Your task to perform on an android device: When is my next appointment? Image 0: 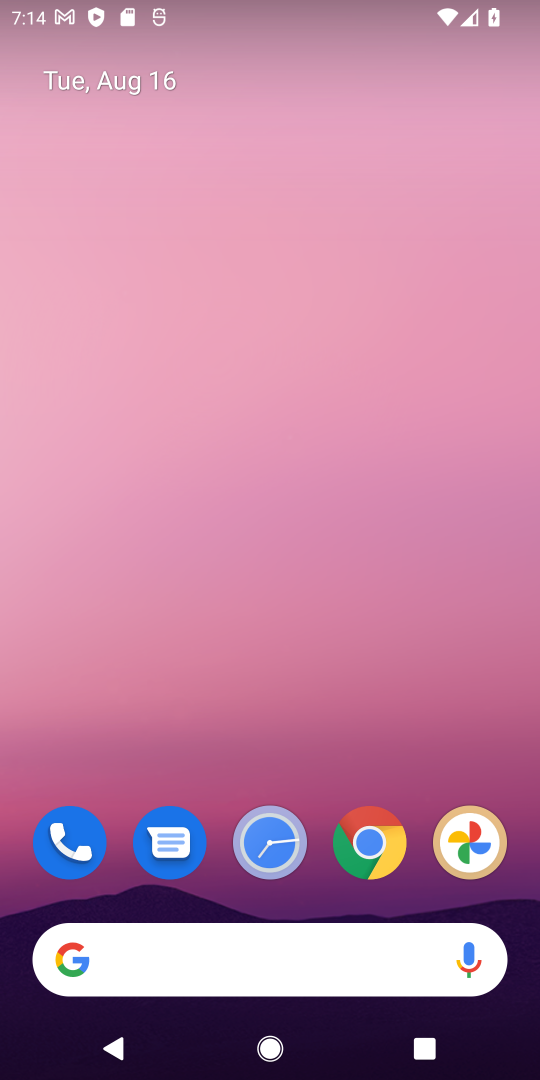
Step 0: press home button
Your task to perform on an android device: When is my next appointment? Image 1: 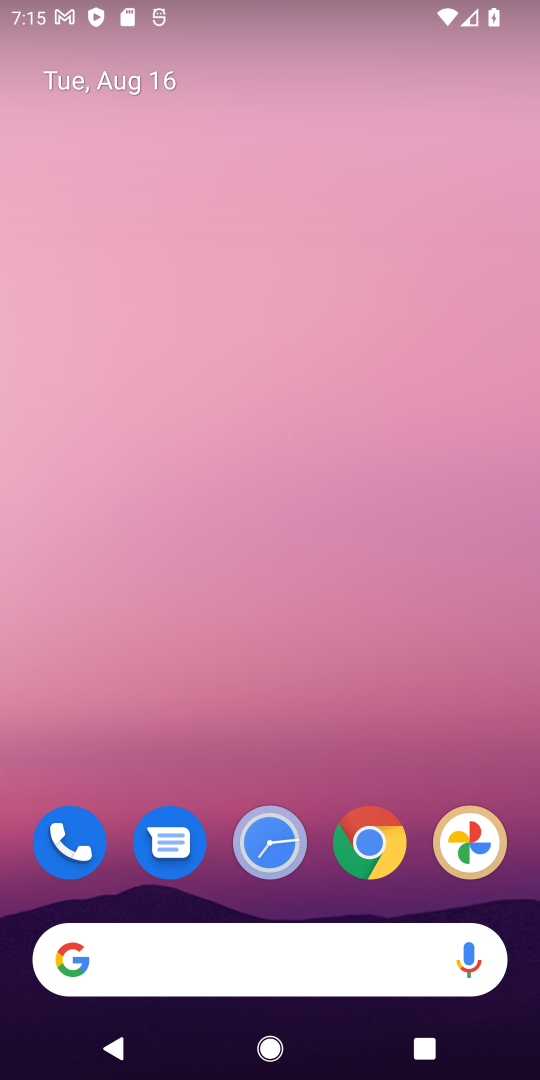
Step 1: drag from (314, 807) to (317, 0)
Your task to perform on an android device: When is my next appointment? Image 2: 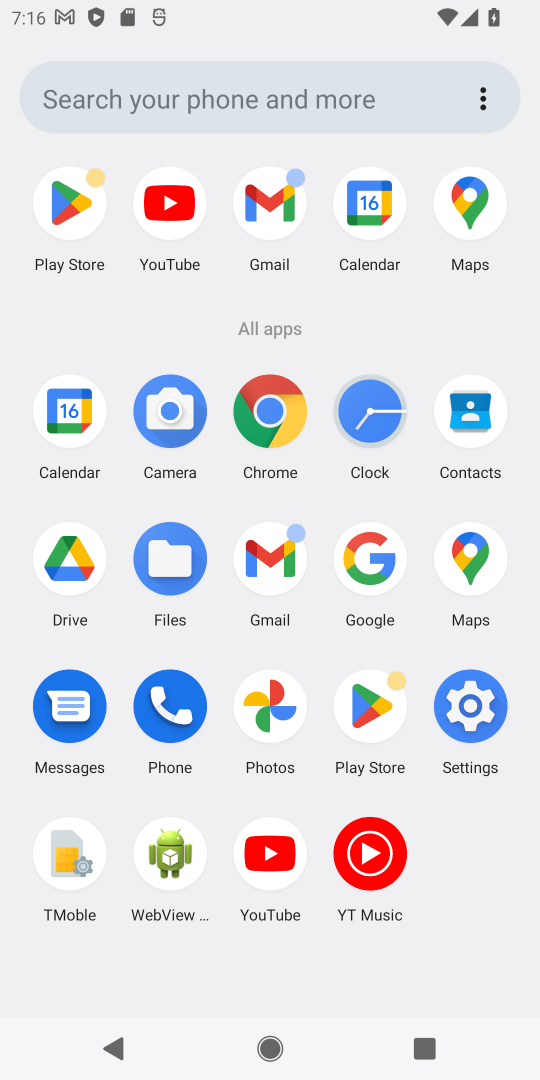
Step 2: click (66, 407)
Your task to perform on an android device: When is my next appointment? Image 3: 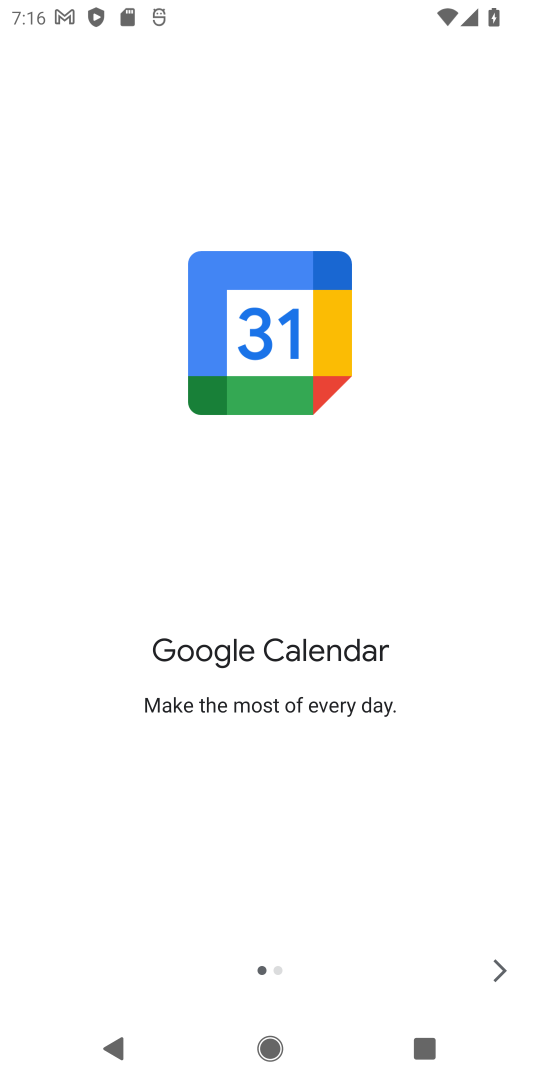
Step 3: click (489, 963)
Your task to perform on an android device: When is my next appointment? Image 4: 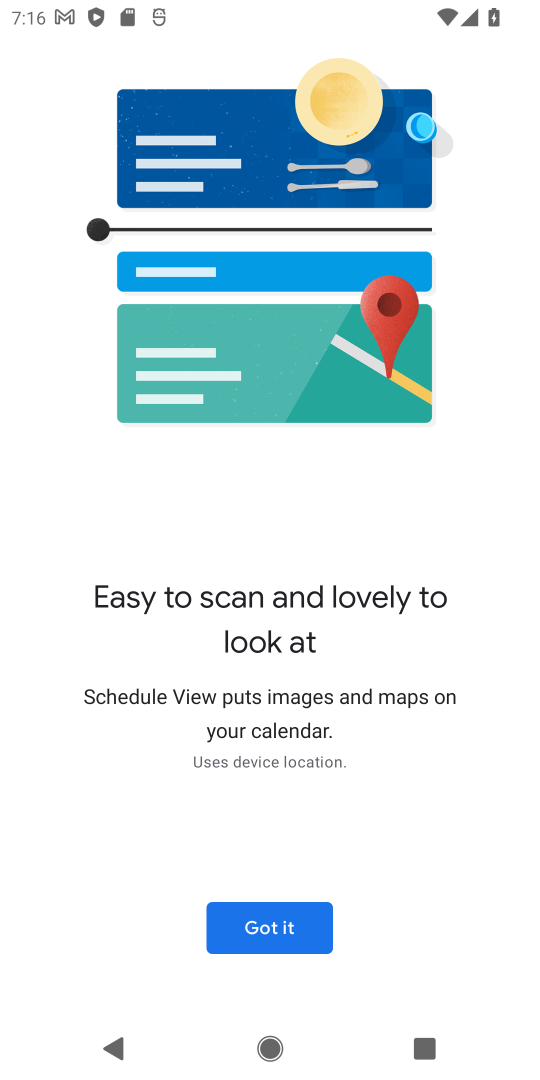
Step 4: click (268, 929)
Your task to perform on an android device: When is my next appointment? Image 5: 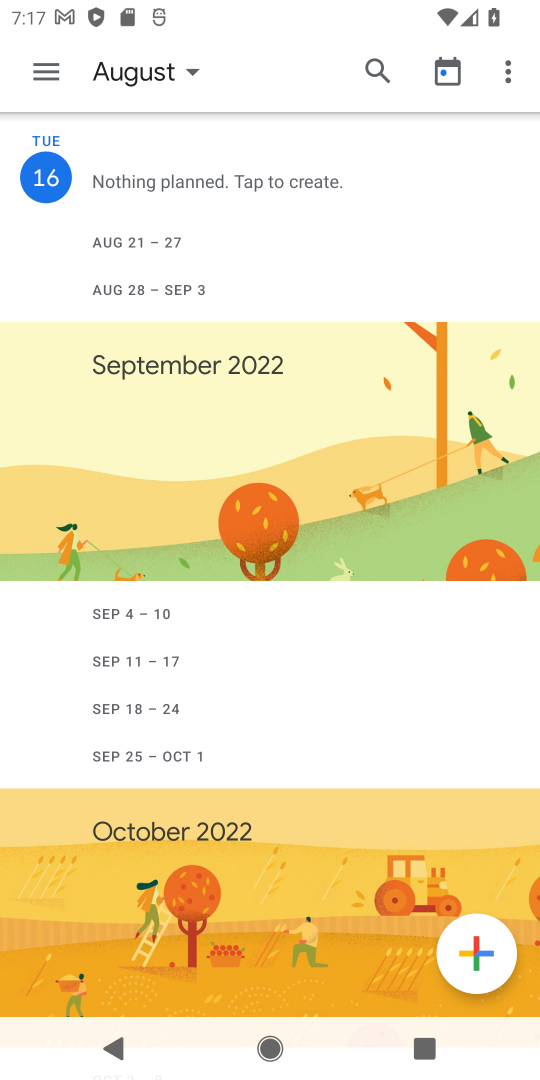
Step 5: task complete